Your task to perform on an android device: Is it going to rain today? Image 0: 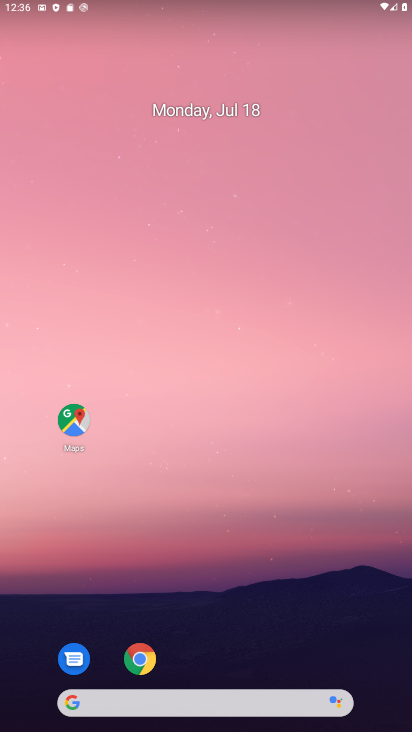
Step 0: drag from (263, 468) to (265, 130)
Your task to perform on an android device: Is it going to rain today? Image 1: 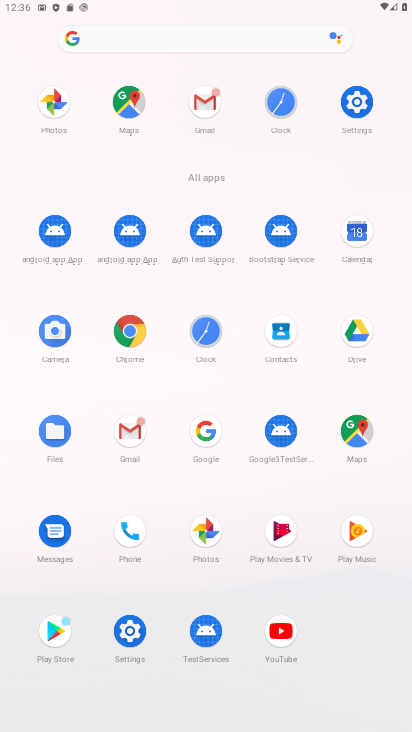
Step 1: click (203, 426)
Your task to perform on an android device: Is it going to rain today? Image 2: 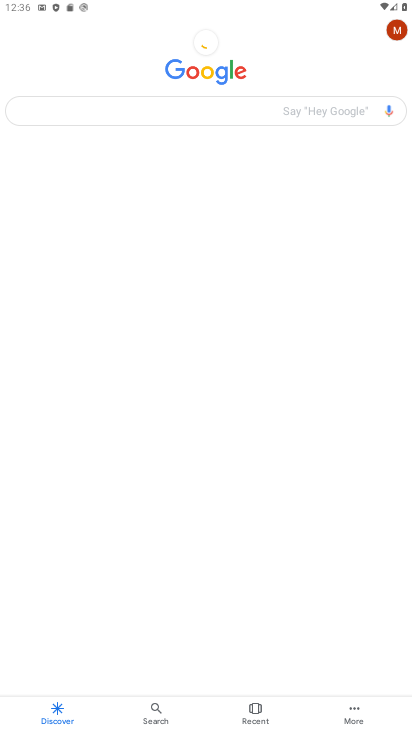
Step 2: click (213, 109)
Your task to perform on an android device: Is it going to rain today? Image 3: 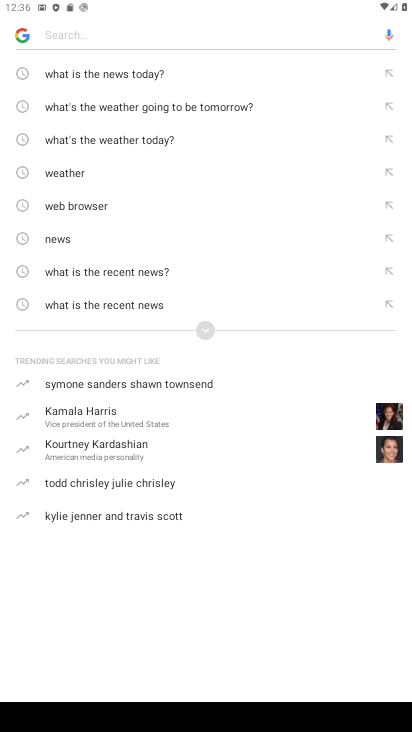
Step 3: click (201, 331)
Your task to perform on an android device: Is it going to rain today? Image 4: 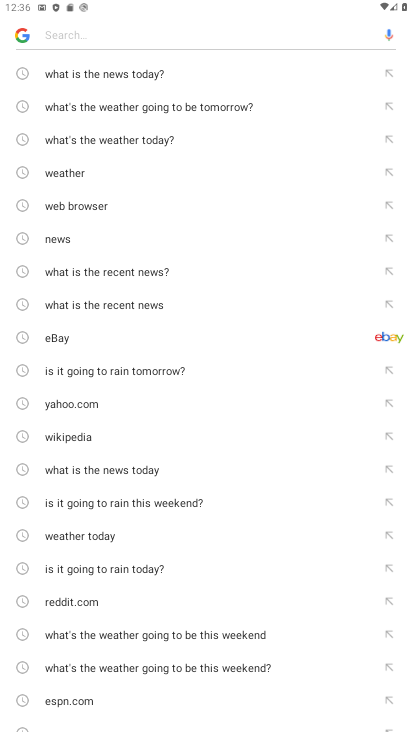
Step 4: click (94, 570)
Your task to perform on an android device: Is it going to rain today? Image 5: 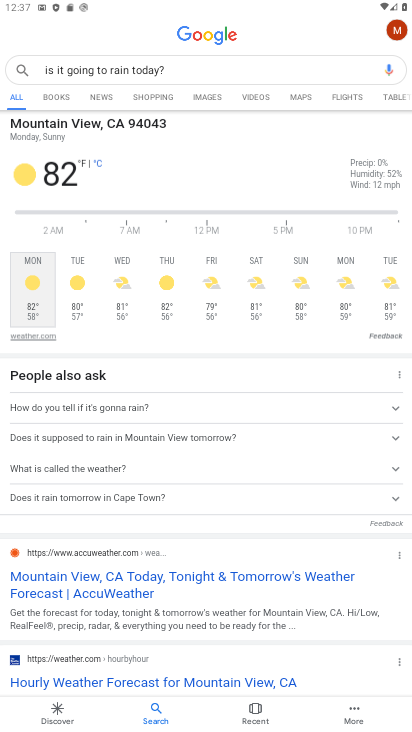
Step 5: task complete